Your task to perform on an android device: Go to sound settings Image 0: 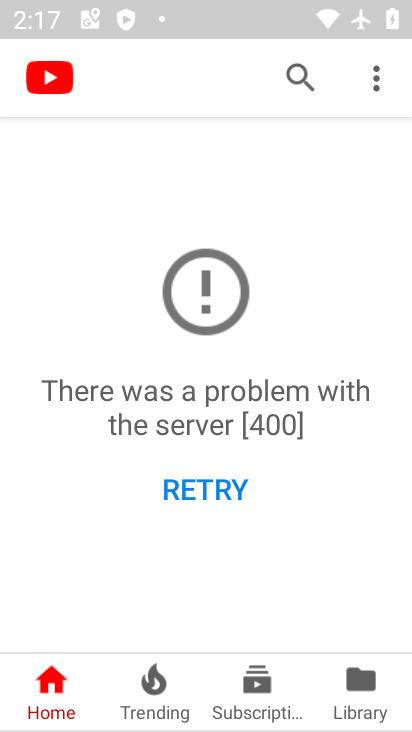
Step 0: press home button
Your task to perform on an android device: Go to sound settings Image 1: 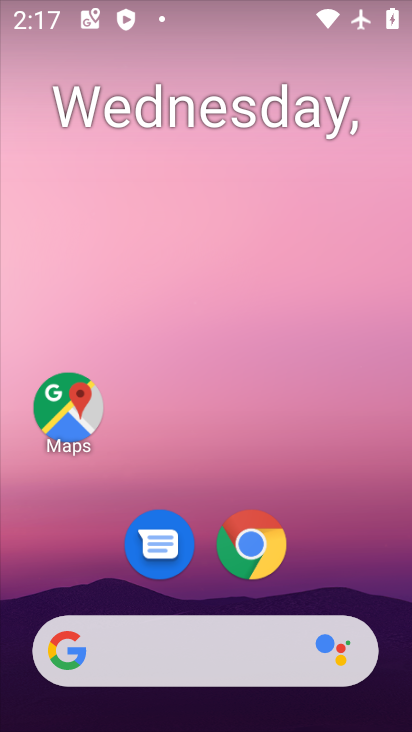
Step 1: drag from (369, 568) to (251, 68)
Your task to perform on an android device: Go to sound settings Image 2: 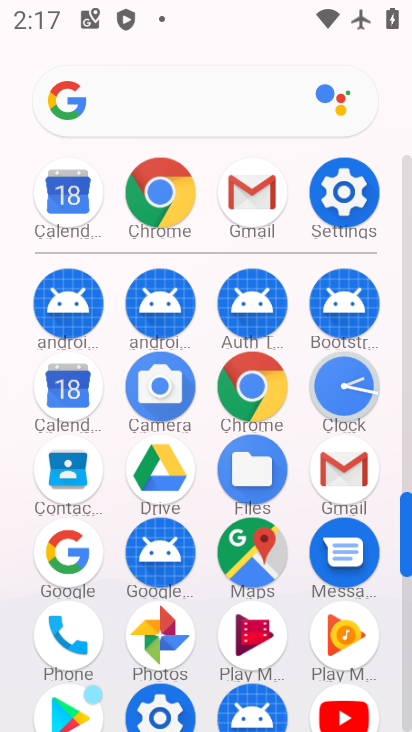
Step 2: click (356, 178)
Your task to perform on an android device: Go to sound settings Image 3: 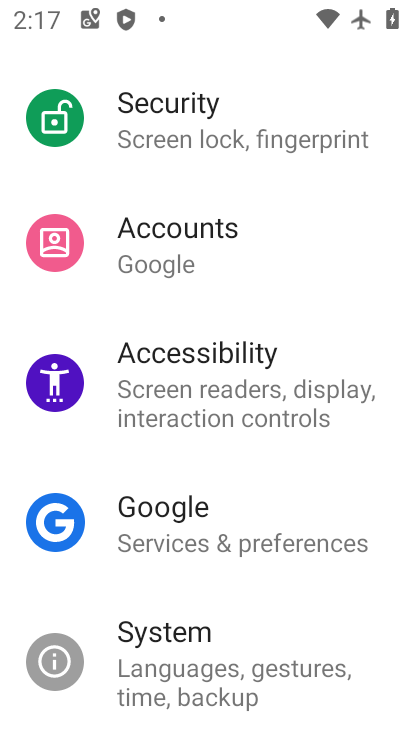
Step 3: drag from (194, 199) to (305, 605)
Your task to perform on an android device: Go to sound settings Image 4: 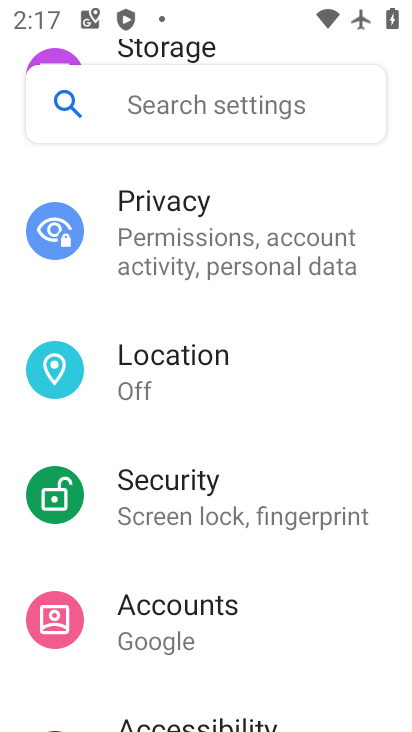
Step 4: drag from (252, 249) to (267, 558)
Your task to perform on an android device: Go to sound settings Image 5: 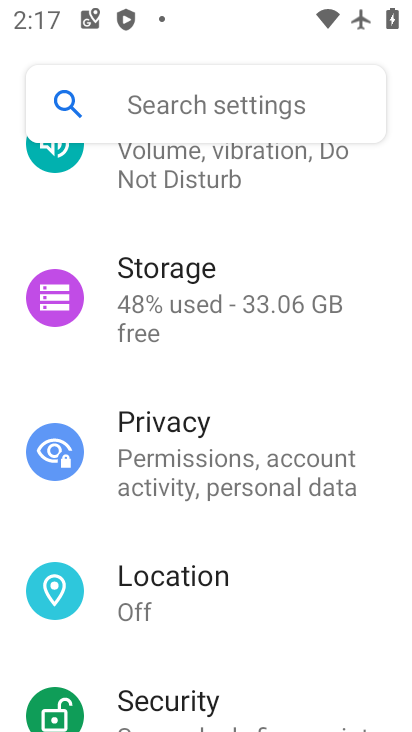
Step 5: drag from (228, 258) to (194, 659)
Your task to perform on an android device: Go to sound settings Image 6: 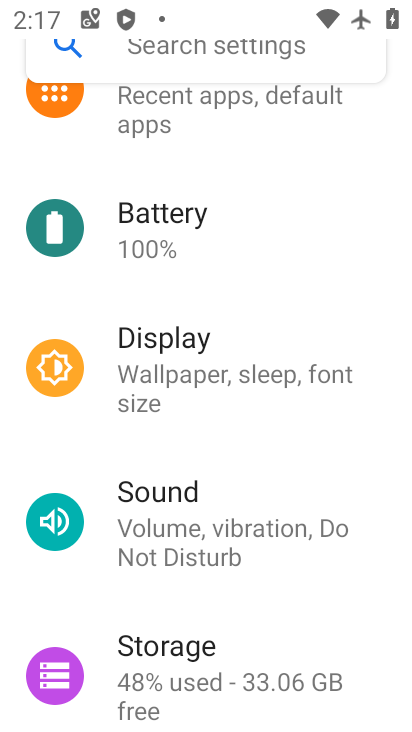
Step 6: click (187, 513)
Your task to perform on an android device: Go to sound settings Image 7: 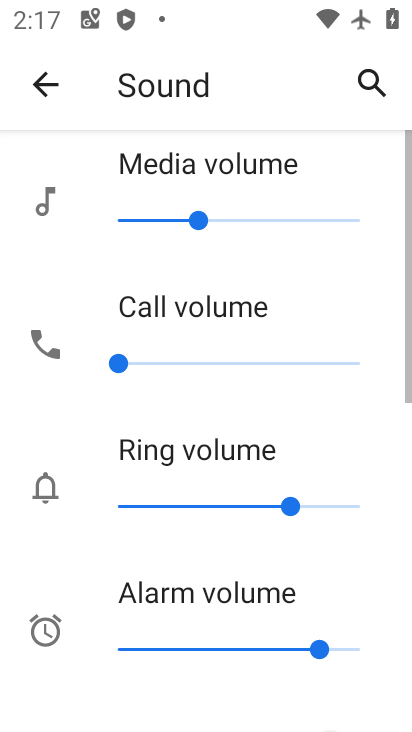
Step 7: task complete